Your task to perform on an android device: Go to Yahoo.com Image 0: 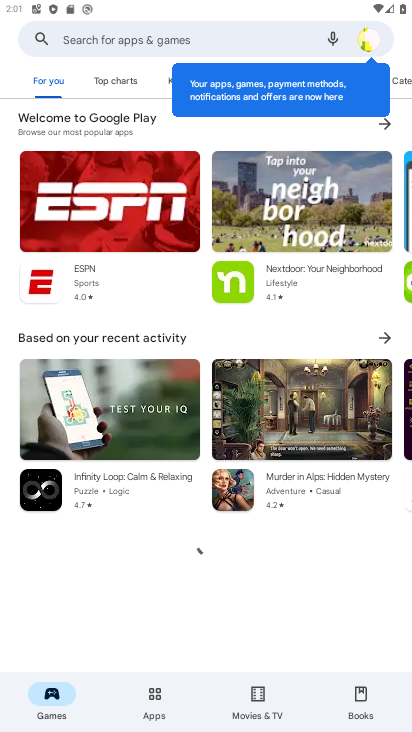
Step 0: press home button
Your task to perform on an android device: Go to Yahoo.com Image 1: 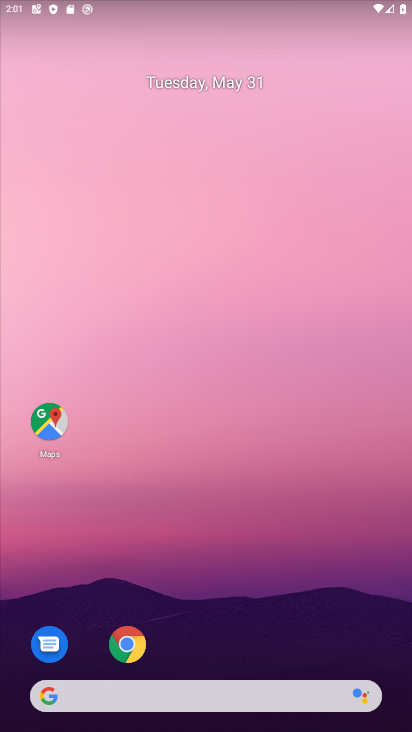
Step 1: click (124, 639)
Your task to perform on an android device: Go to Yahoo.com Image 2: 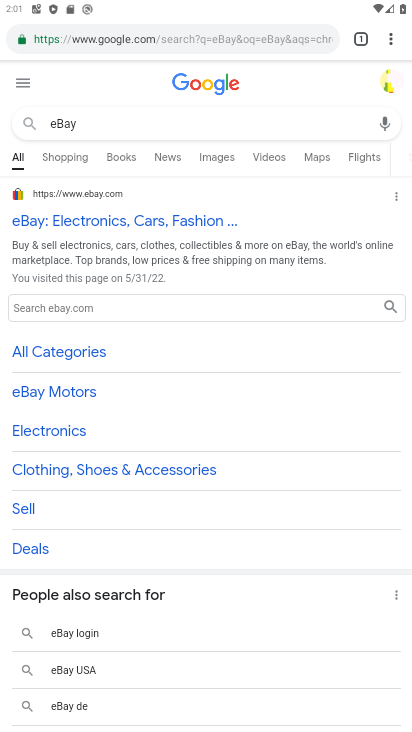
Step 2: click (330, 29)
Your task to perform on an android device: Go to Yahoo.com Image 3: 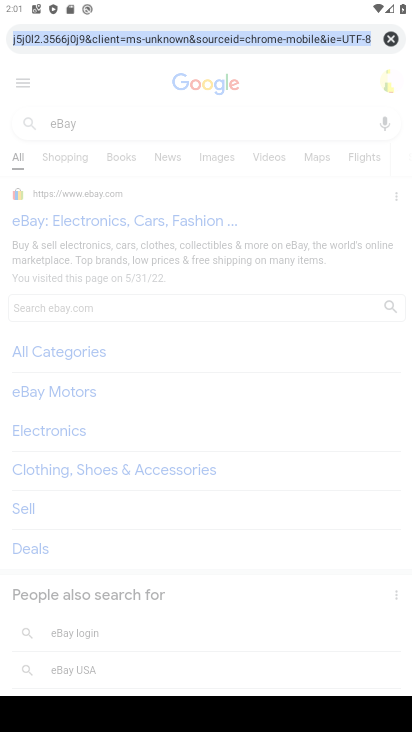
Step 3: click (391, 42)
Your task to perform on an android device: Go to Yahoo.com Image 4: 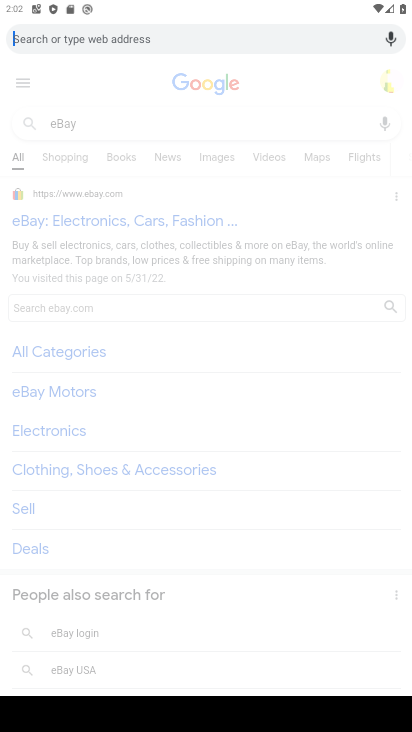
Step 4: type "Yahoo.com"
Your task to perform on an android device: Go to Yahoo.com Image 5: 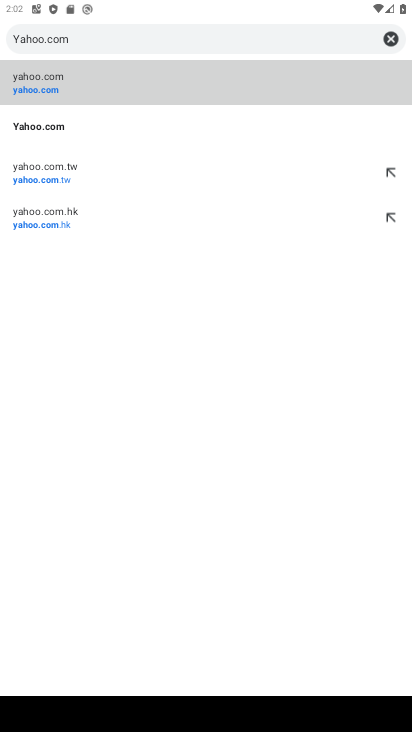
Step 5: click (40, 124)
Your task to perform on an android device: Go to Yahoo.com Image 6: 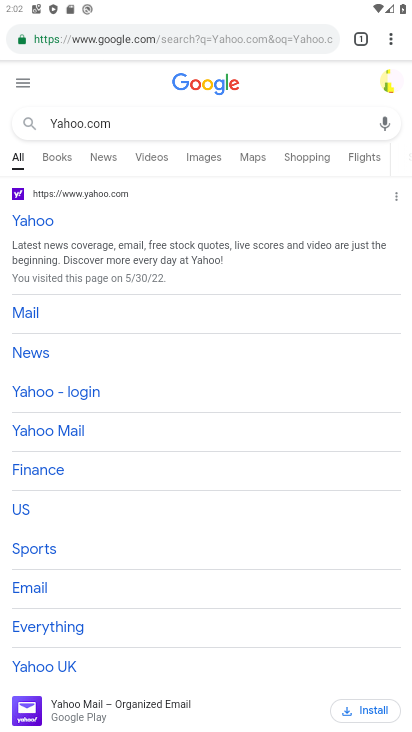
Step 6: task complete